Your task to perform on an android device: Open the web browser Image 0: 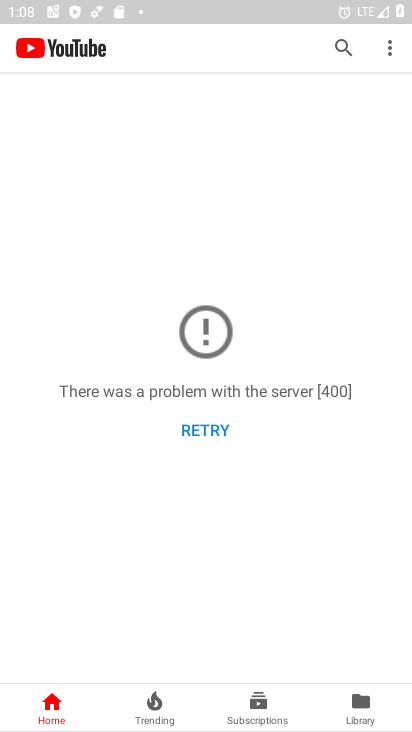
Step 0: press back button
Your task to perform on an android device: Open the web browser Image 1: 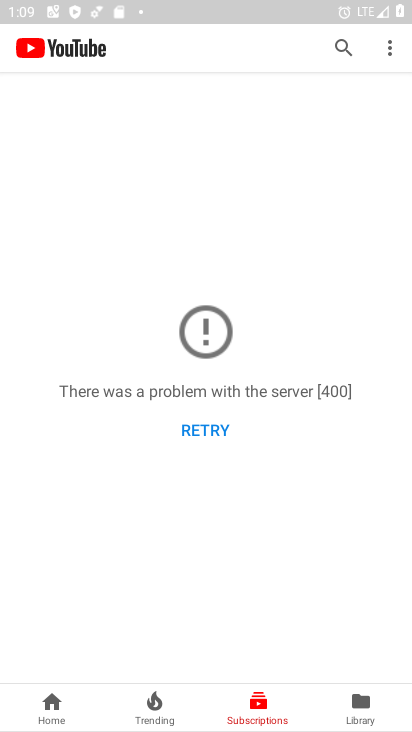
Step 1: press home button
Your task to perform on an android device: Open the web browser Image 2: 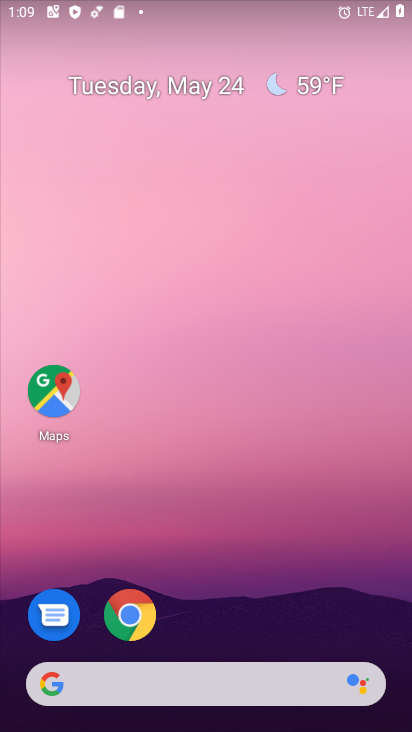
Step 2: drag from (230, 587) to (221, 71)
Your task to perform on an android device: Open the web browser Image 3: 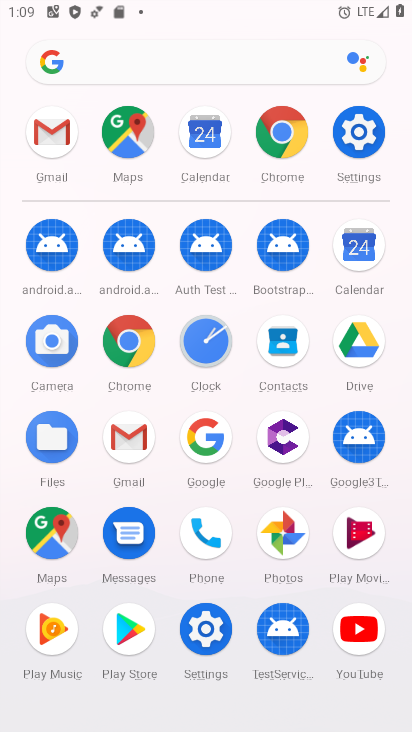
Step 3: click (128, 341)
Your task to perform on an android device: Open the web browser Image 4: 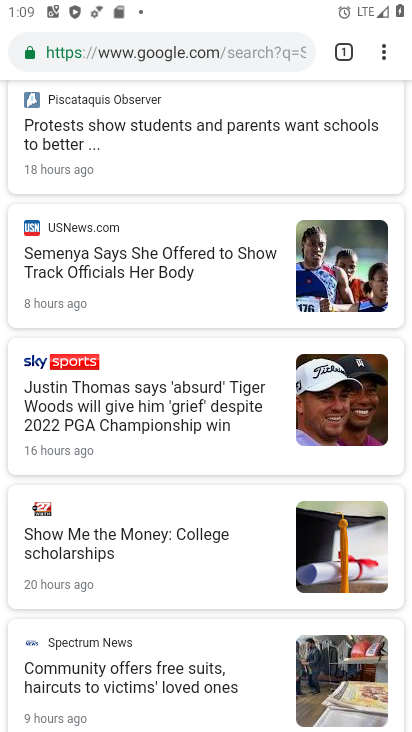
Step 4: task complete